Your task to perform on an android device: refresh tabs in the chrome app Image 0: 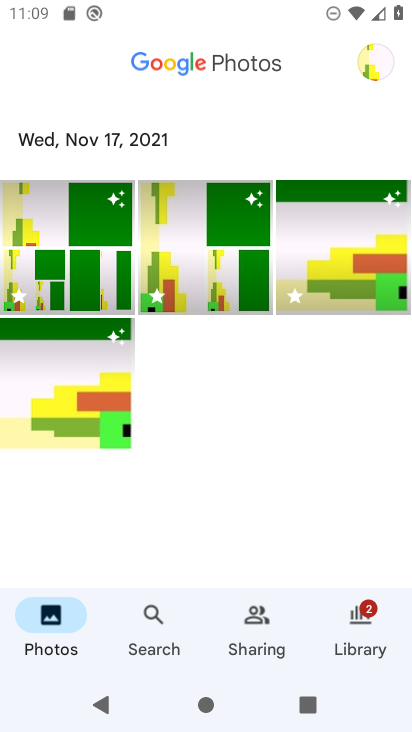
Step 0: press home button
Your task to perform on an android device: refresh tabs in the chrome app Image 1: 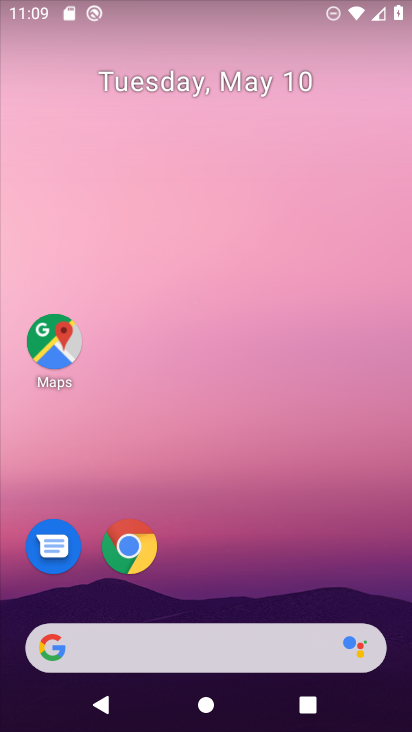
Step 1: click (127, 546)
Your task to perform on an android device: refresh tabs in the chrome app Image 2: 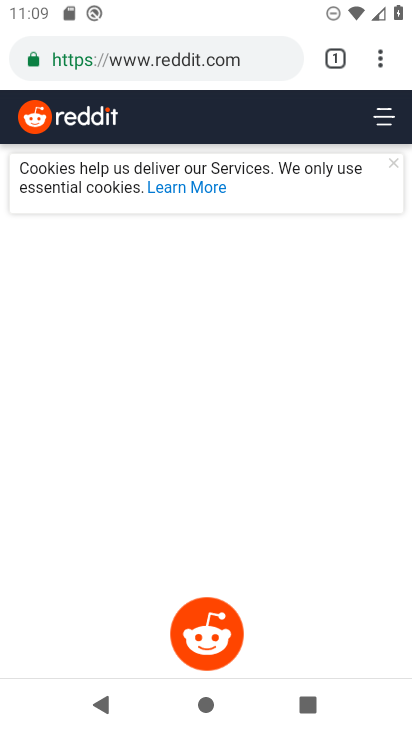
Step 2: click (379, 61)
Your task to perform on an android device: refresh tabs in the chrome app Image 3: 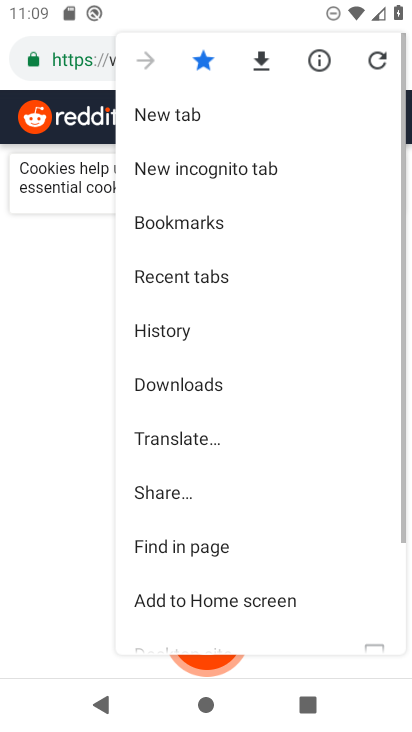
Step 3: click (379, 61)
Your task to perform on an android device: refresh tabs in the chrome app Image 4: 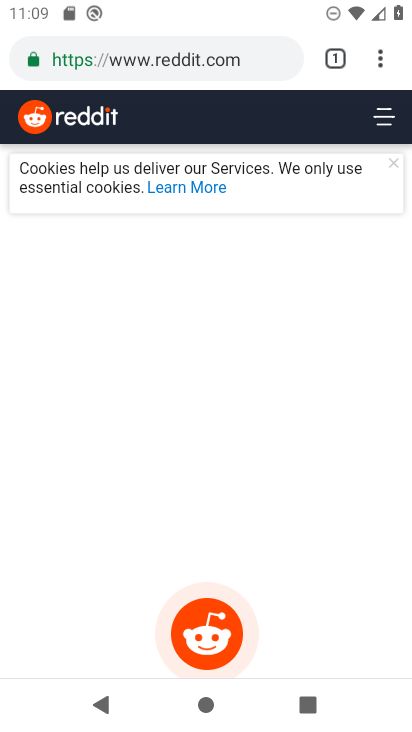
Step 4: task complete